Your task to perform on an android device: Clear the shopping cart on amazon.com. Add dell alienware to the cart on amazon.com Image 0: 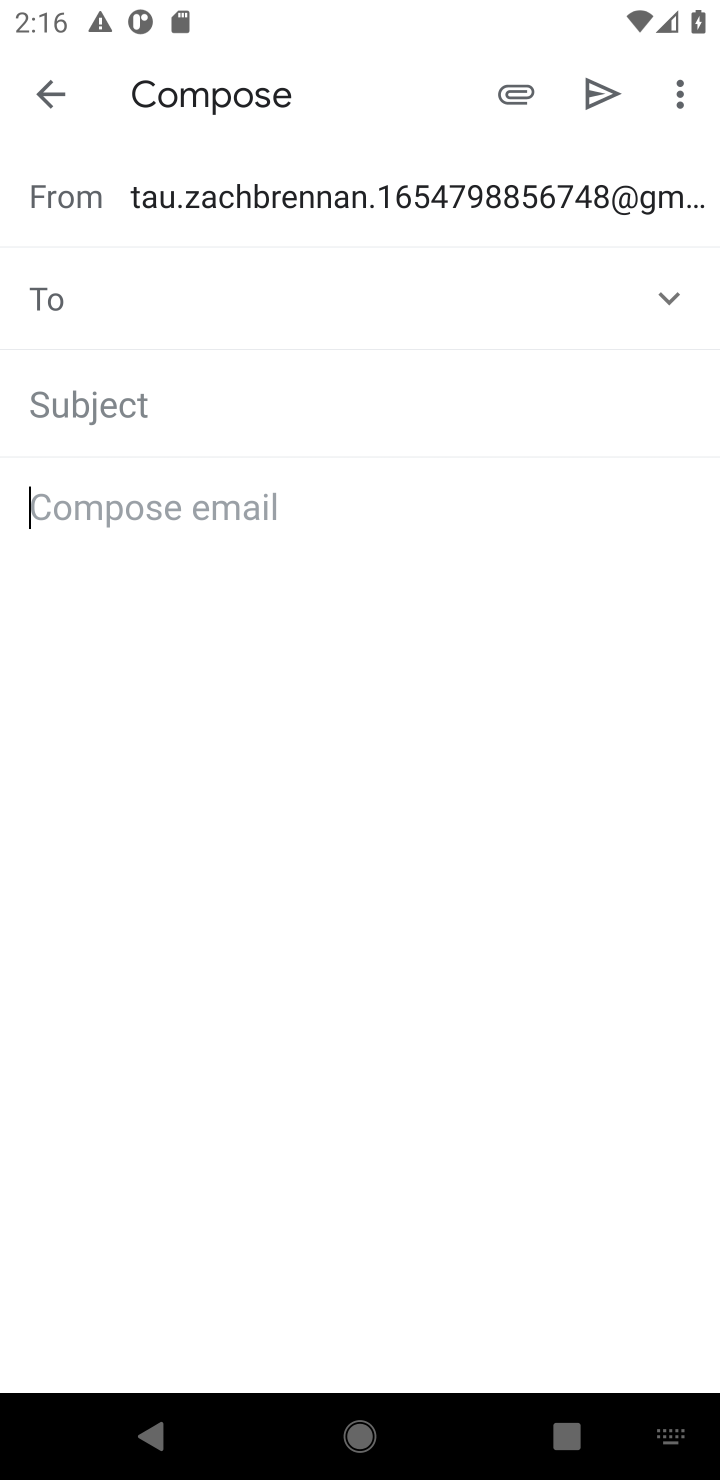
Step 0: press home button
Your task to perform on an android device: Clear the shopping cart on amazon.com. Add dell alienware to the cart on amazon.com Image 1: 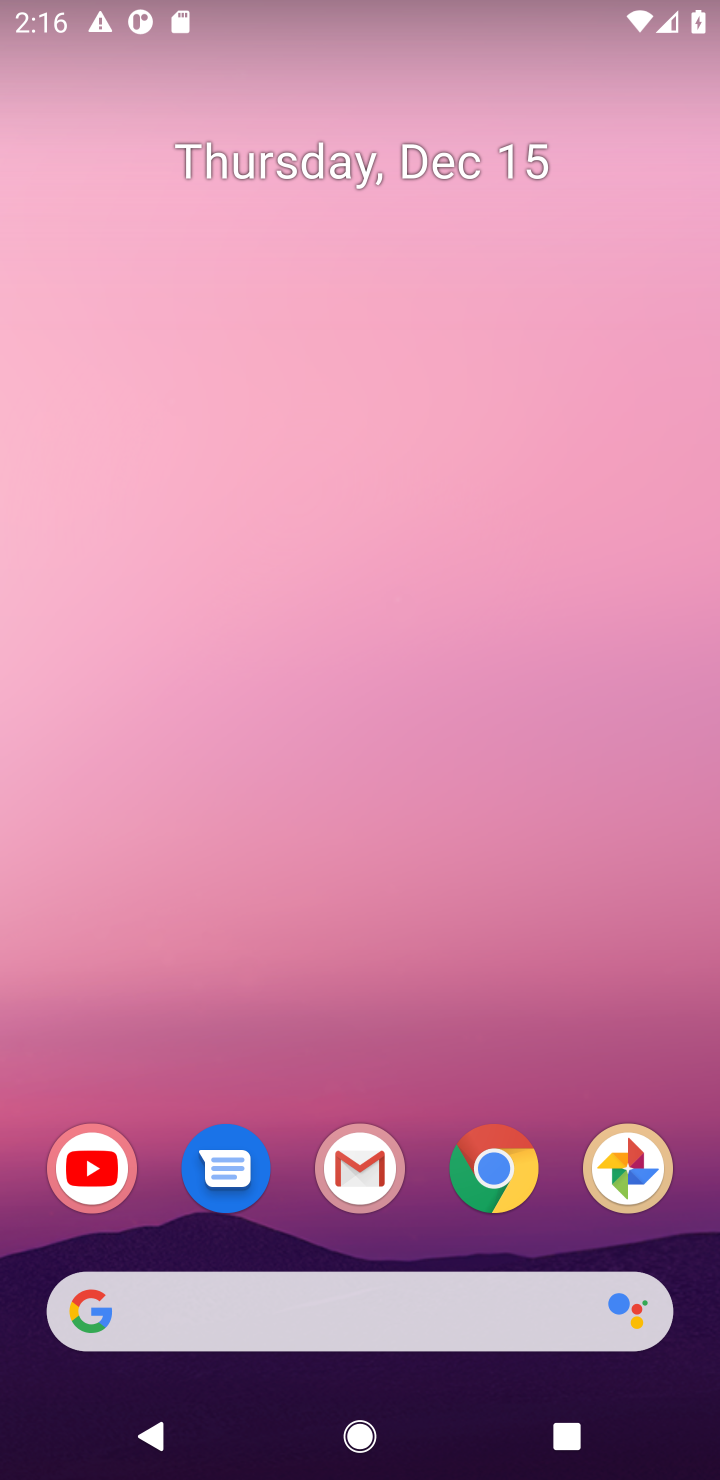
Step 1: click (479, 1166)
Your task to perform on an android device: Clear the shopping cart on amazon.com. Add dell alienware to the cart on amazon.com Image 2: 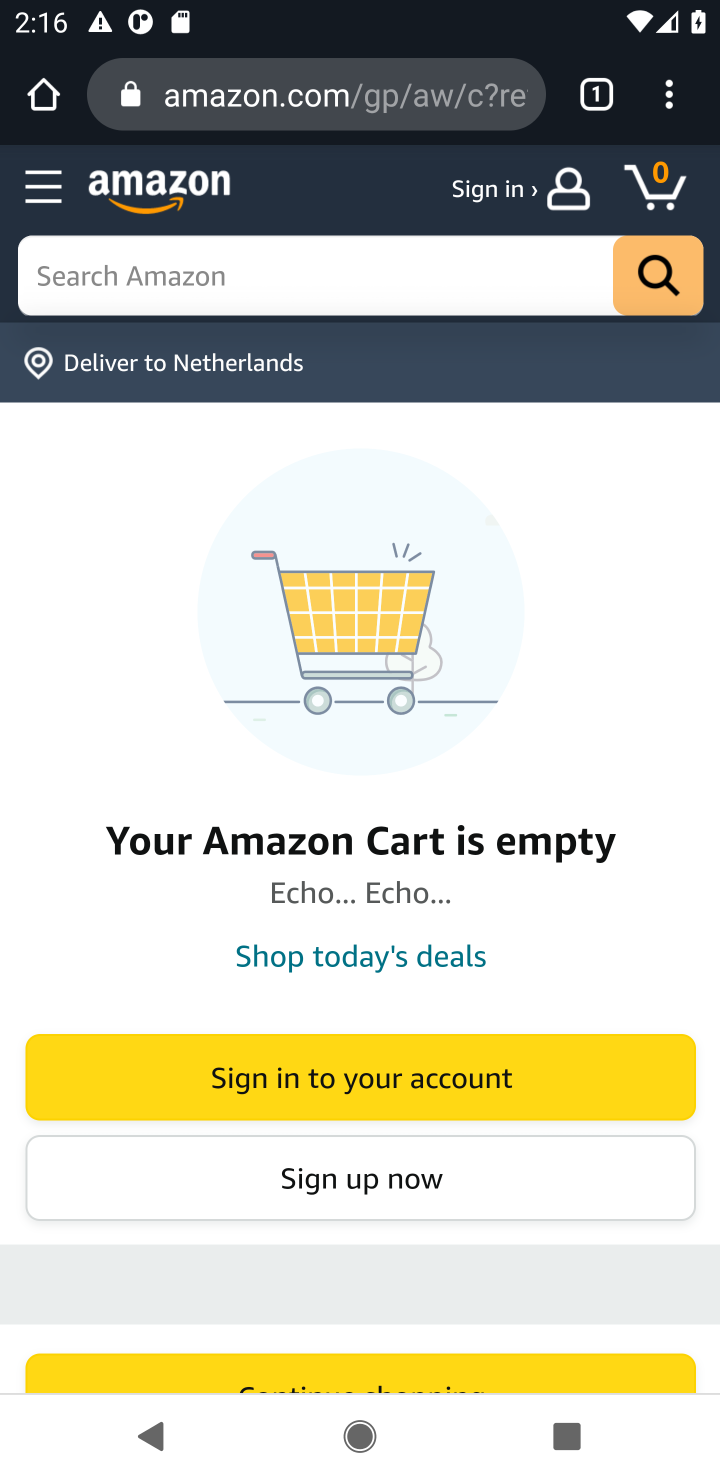
Step 2: click (478, 284)
Your task to perform on an android device: Clear the shopping cart on amazon.com. Add dell alienware to the cart on amazon.com Image 3: 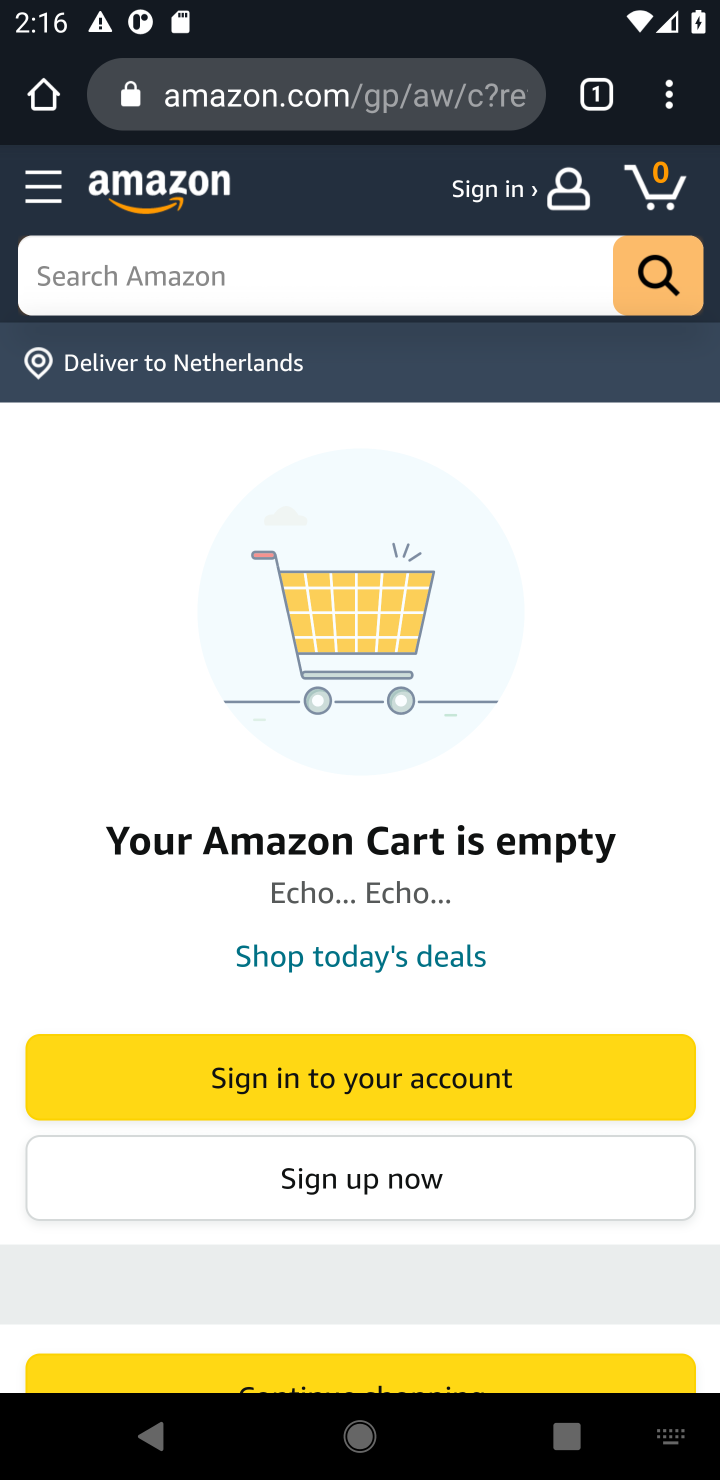
Step 3: press enter
Your task to perform on an android device: Clear the shopping cart on amazon.com. Add dell alienware to the cart on amazon.com Image 4: 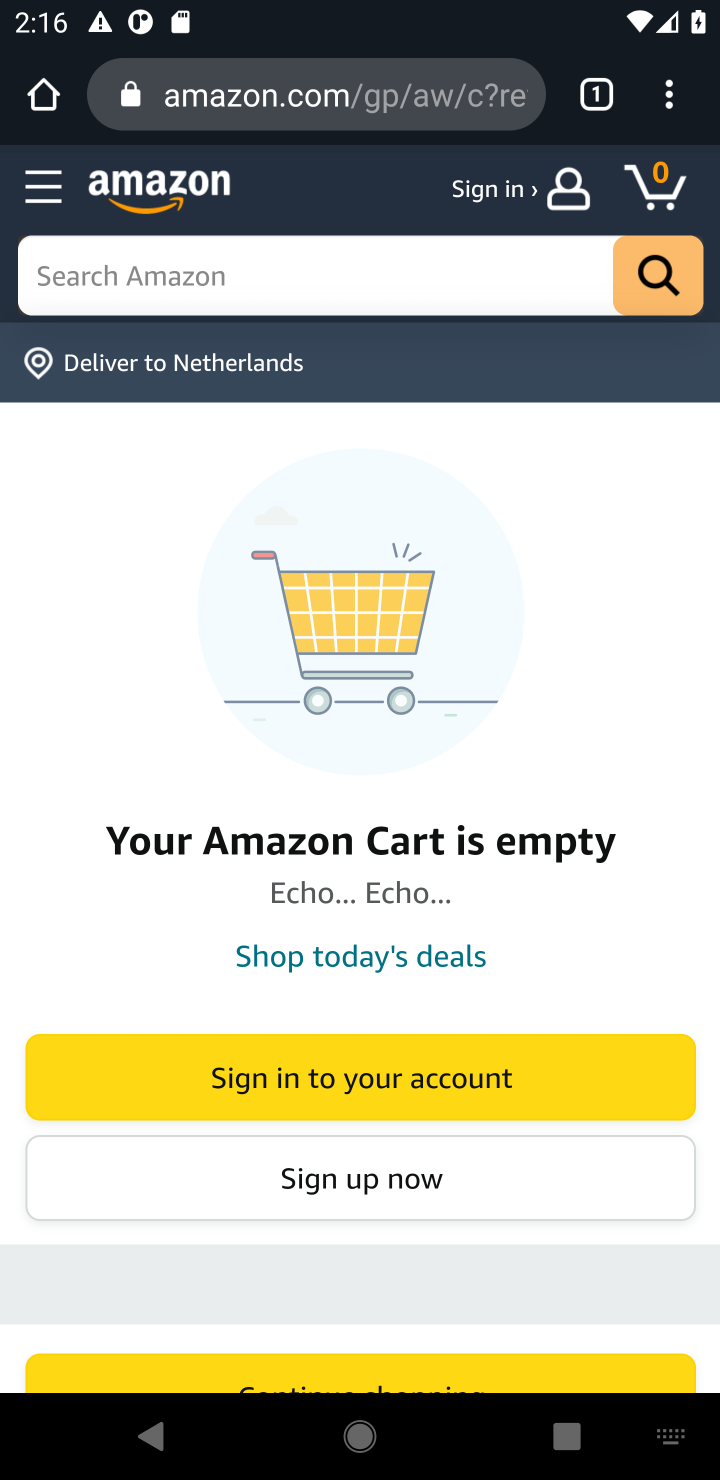
Step 4: type "dell alienware "
Your task to perform on an android device: Clear the shopping cart on amazon.com. Add dell alienware to the cart on amazon.com Image 5: 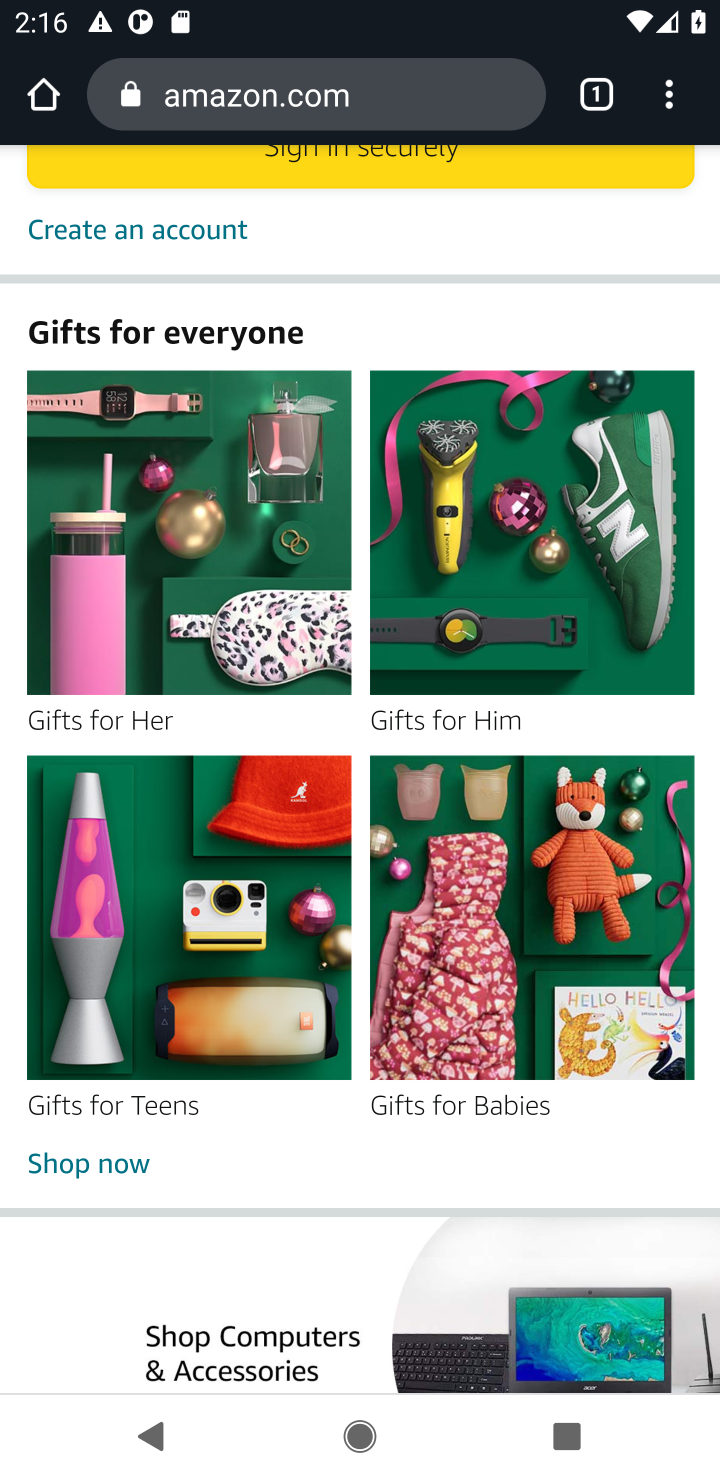
Step 5: press back button
Your task to perform on an android device: Clear the shopping cart on amazon.com. Add dell alienware to the cart on amazon.com Image 6: 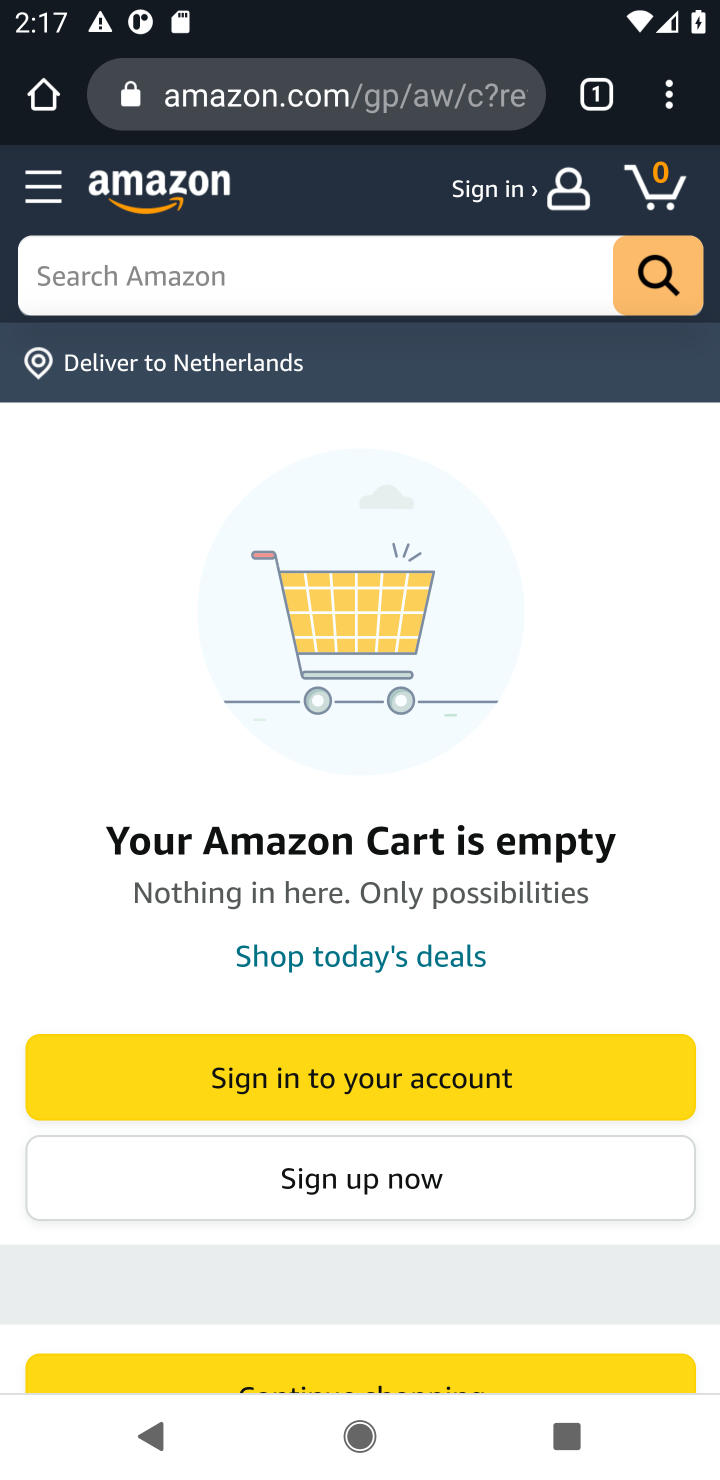
Step 6: click (369, 285)
Your task to perform on an android device: Clear the shopping cart on amazon.com. Add dell alienware to the cart on amazon.com Image 7: 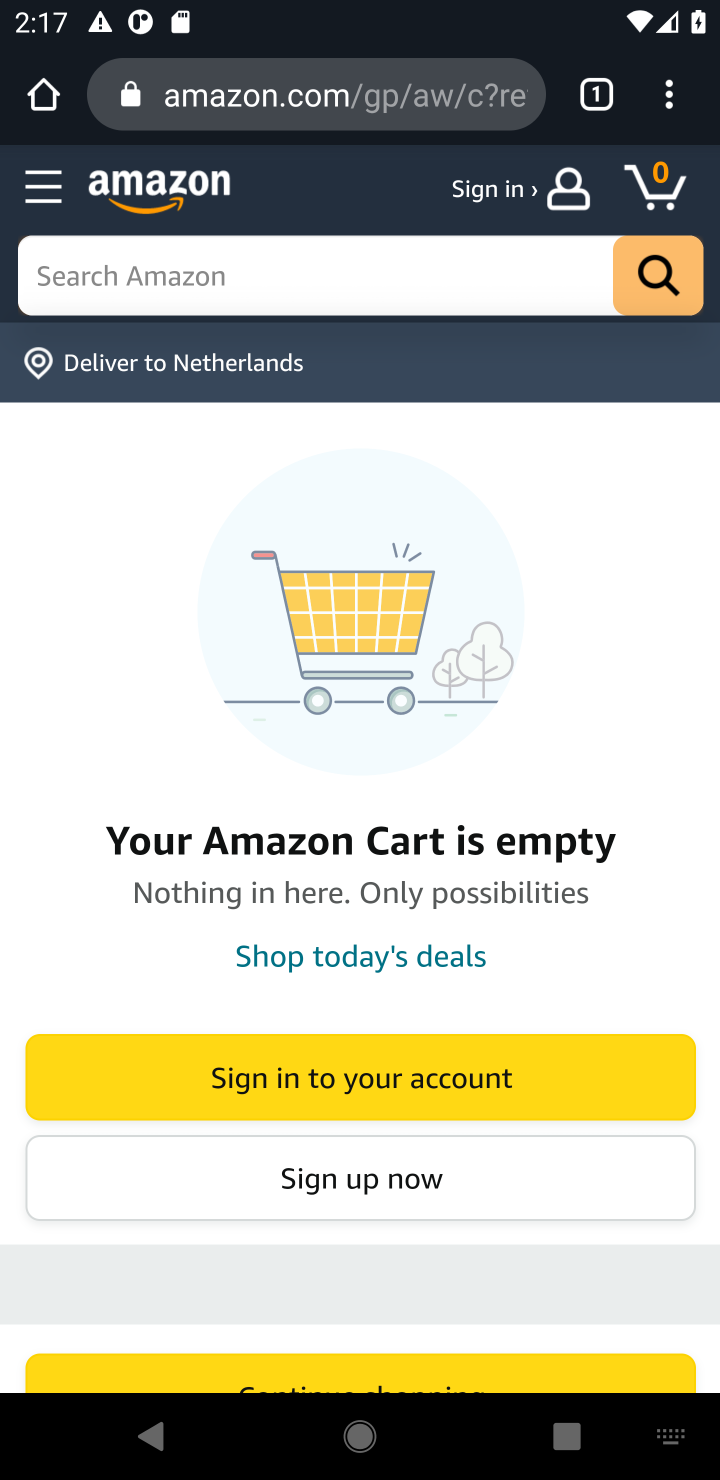
Step 7: type "dell alienware "
Your task to perform on an android device: Clear the shopping cart on amazon.com. Add dell alienware to the cart on amazon.com Image 8: 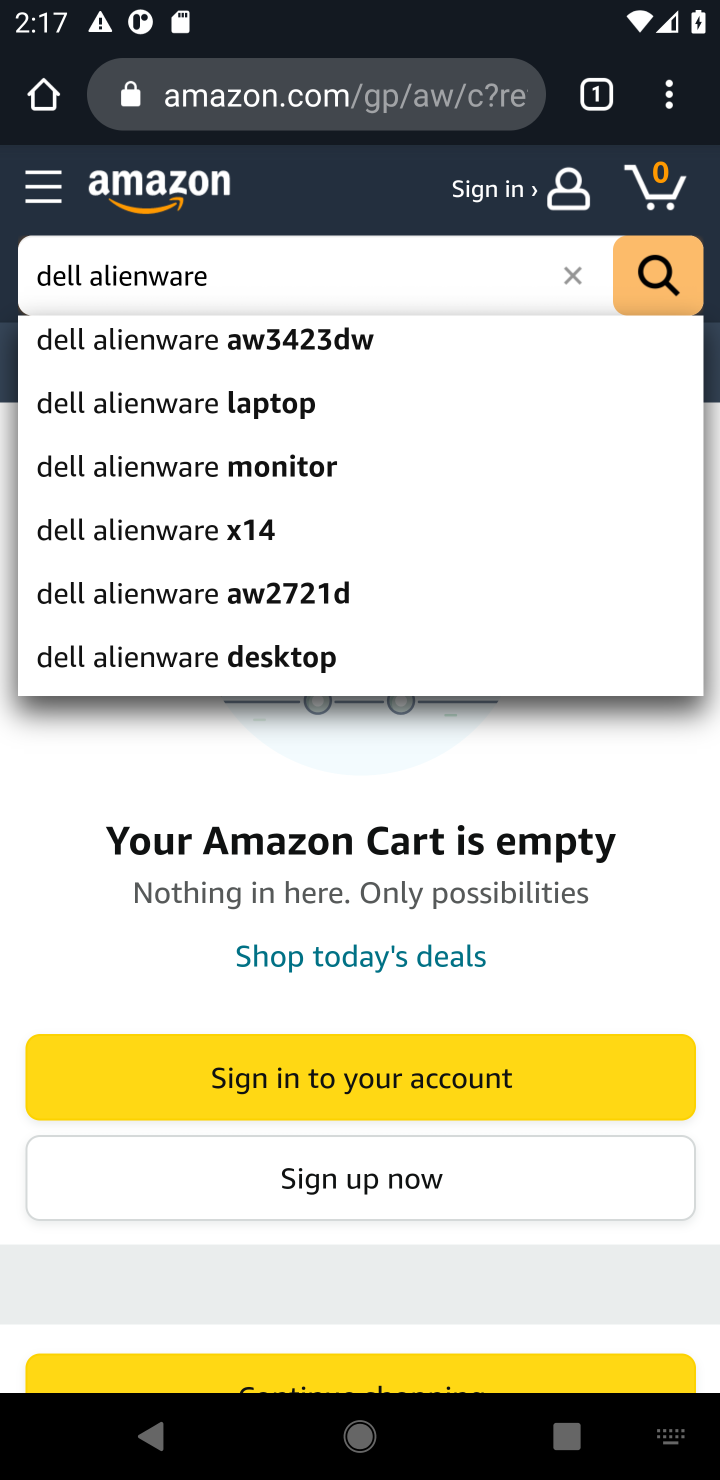
Step 8: click (643, 285)
Your task to perform on an android device: Clear the shopping cart on amazon.com. Add dell alienware to the cart on amazon.com Image 9: 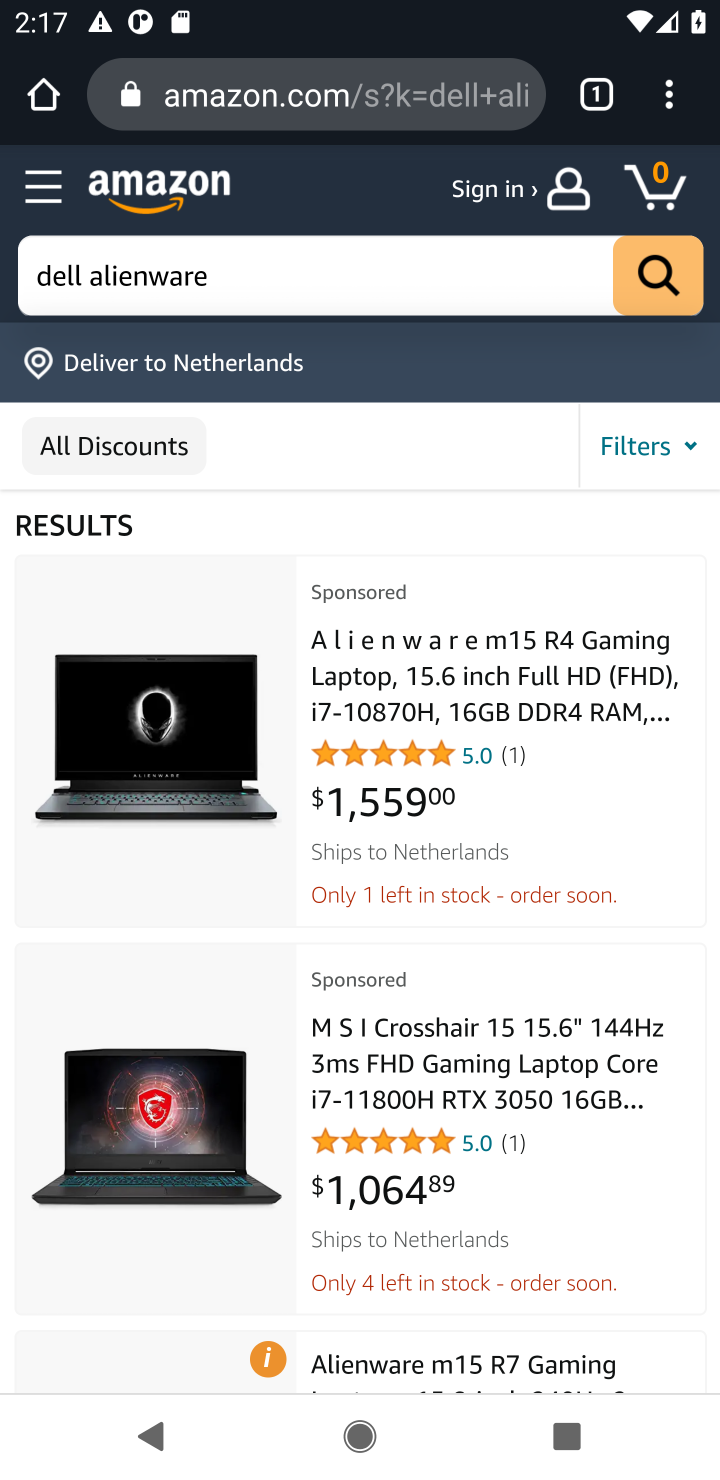
Step 9: drag from (521, 1103) to (473, 617)
Your task to perform on an android device: Clear the shopping cart on amazon.com. Add dell alienware to the cart on amazon.com Image 10: 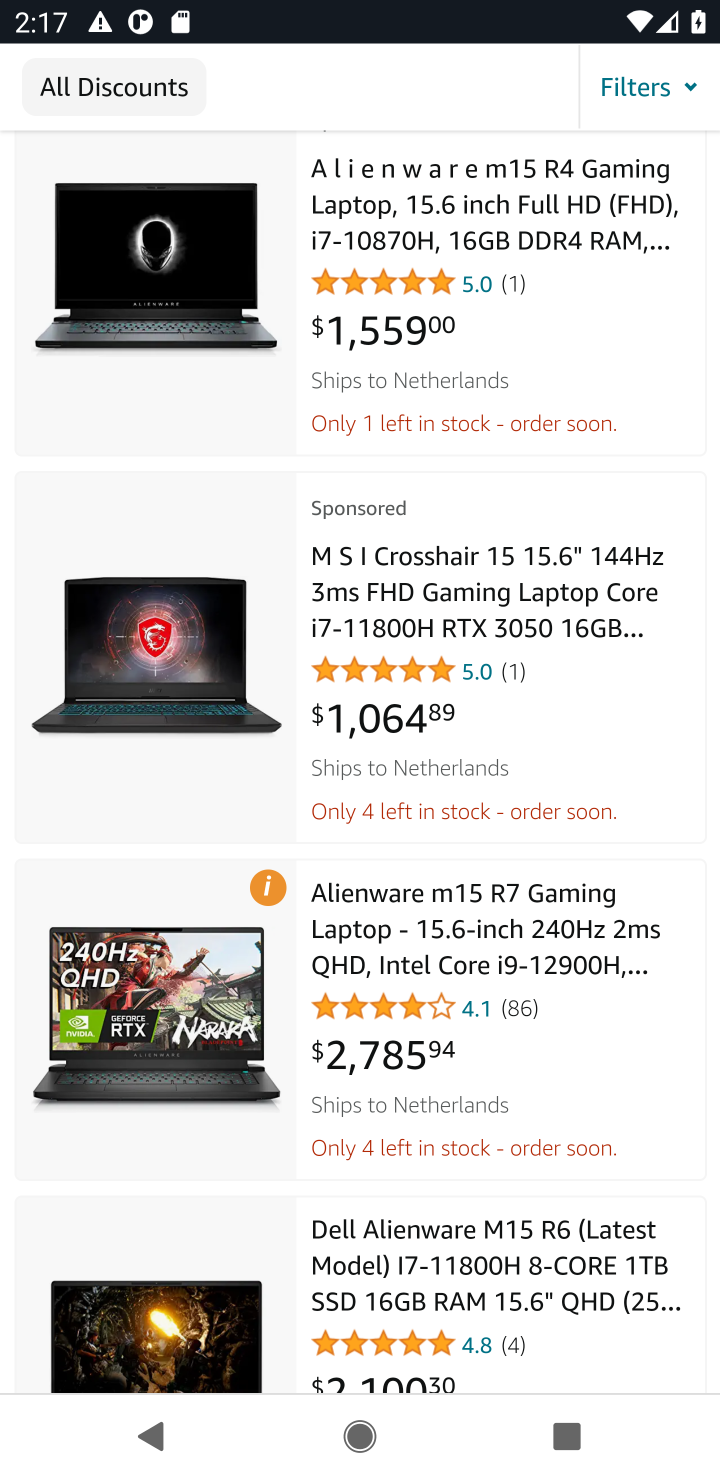
Step 10: drag from (359, 1170) to (308, 727)
Your task to perform on an android device: Clear the shopping cart on amazon.com. Add dell alienware to the cart on amazon.com Image 11: 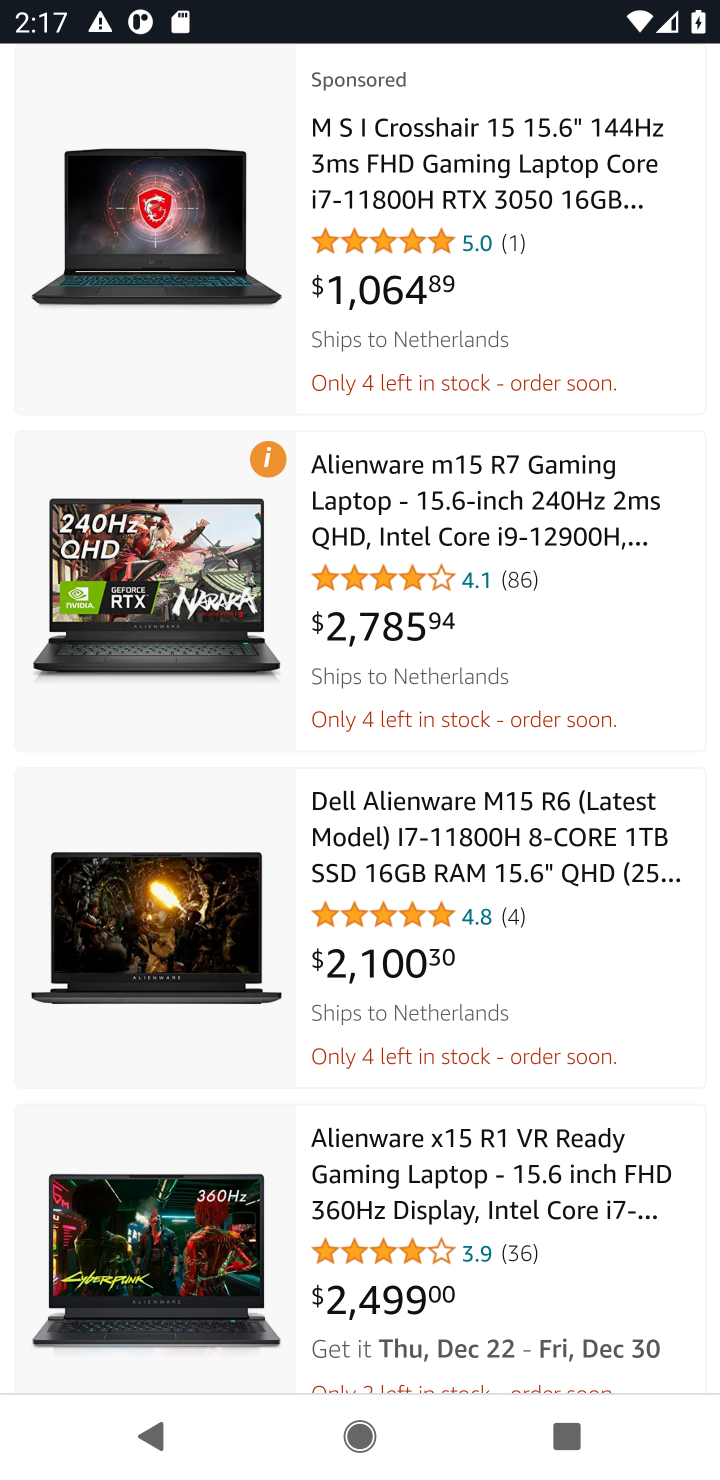
Step 11: click (165, 940)
Your task to perform on an android device: Clear the shopping cart on amazon.com. Add dell alienware to the cart on amazon.com Image 12: 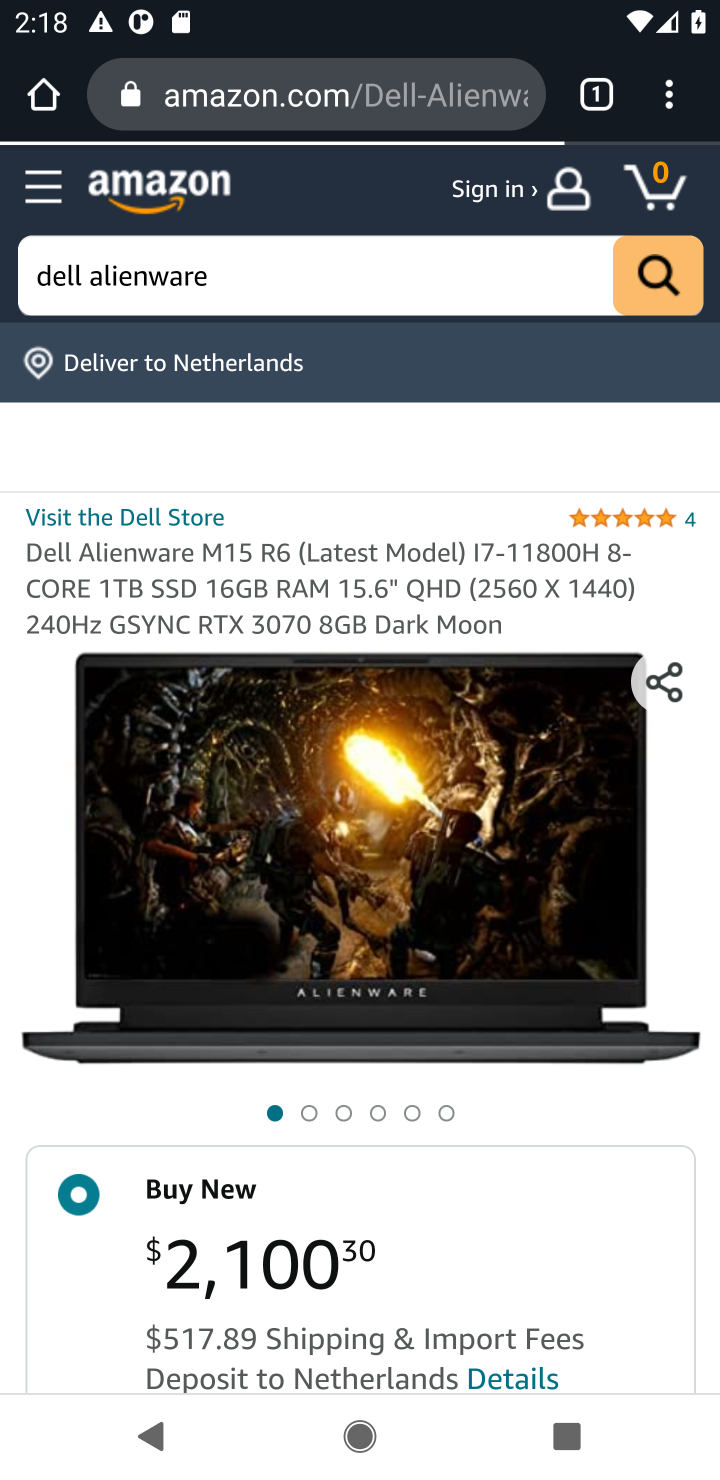
Step 12: drag from (507, 1185) to (452, 512)
Your task to perform on an android device: Clear the shopping cart on amazon.com. Add dell alienware to the cart on amazon.com Image 13: 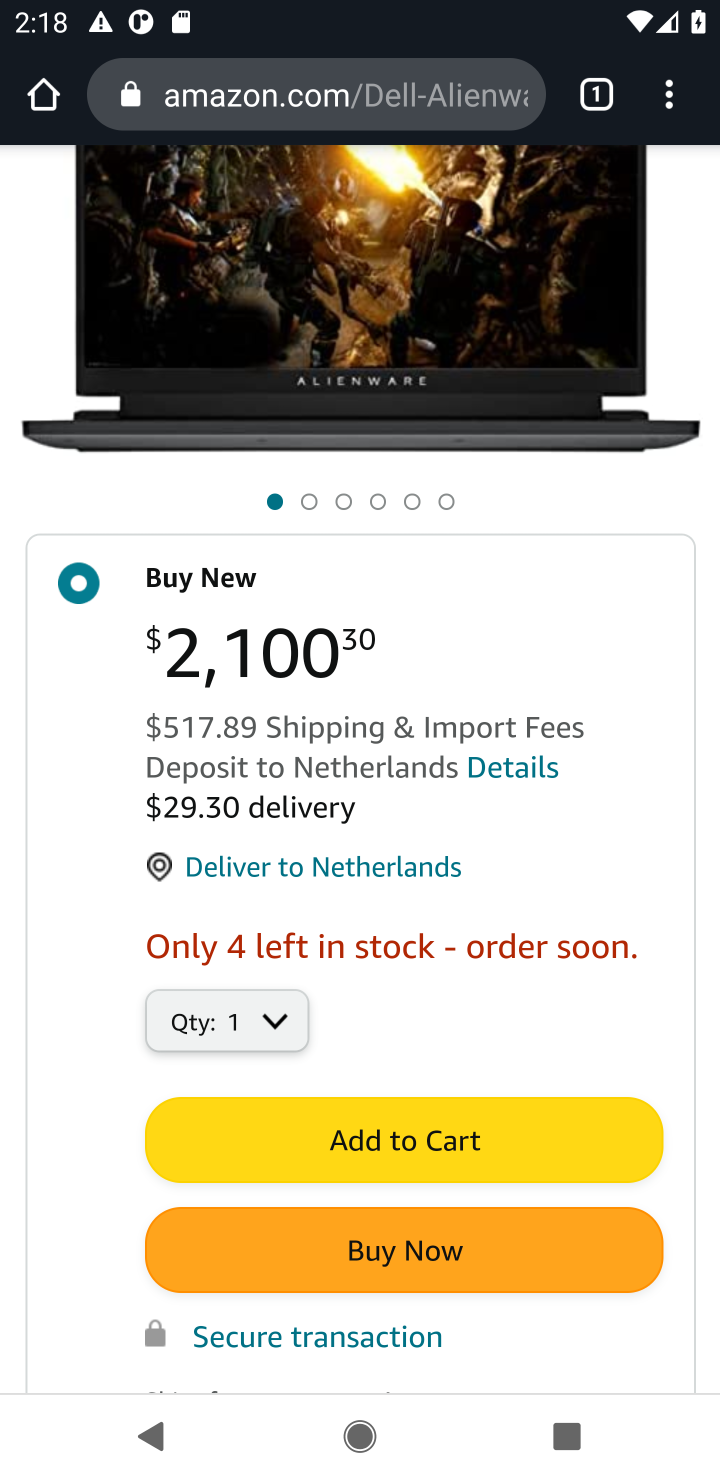
Step 13: click (421, 1142)
Your task to perform on an android device: Clear the shopping cart on amazon.com. Add dell alienware to the cart on amazon.com Image 14: 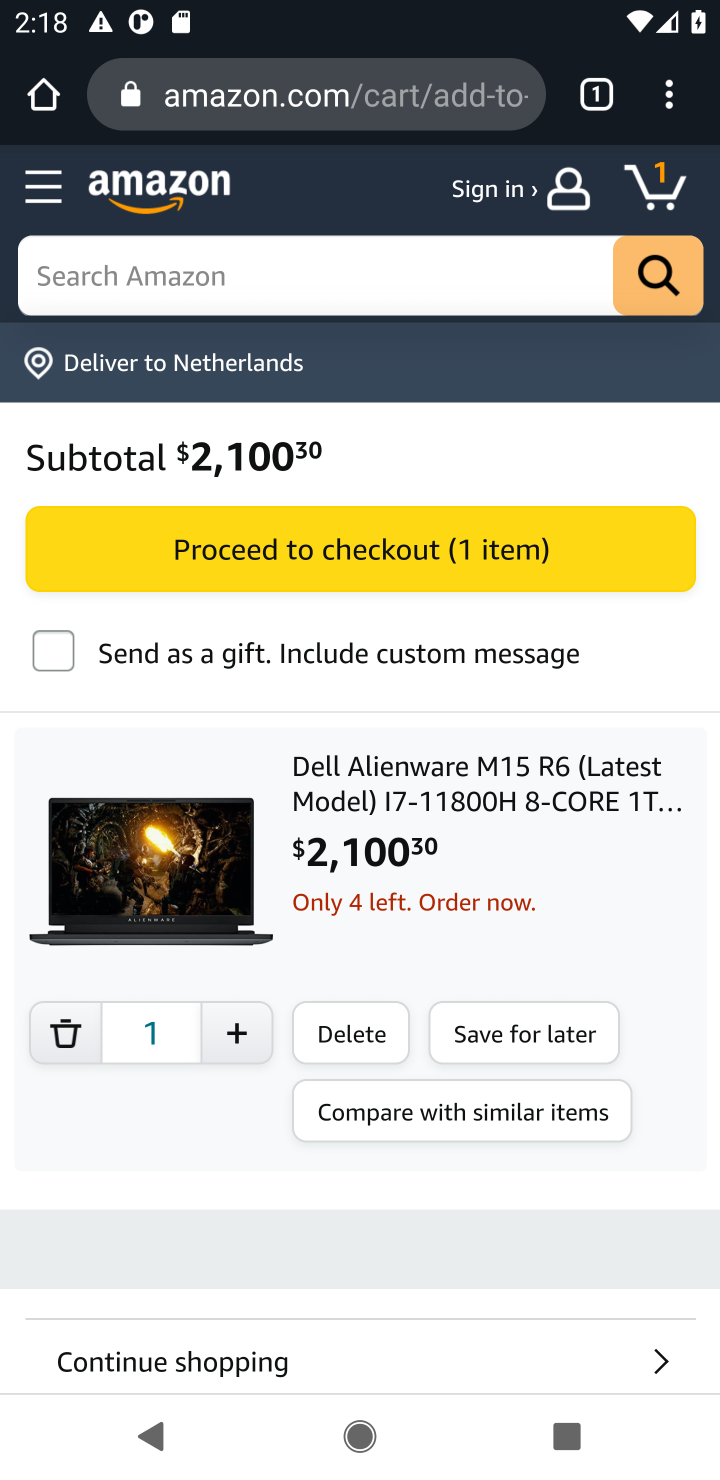
Step 14: task complete